Your task to perform on an android device: turn on translation in the chrome app Image 0: 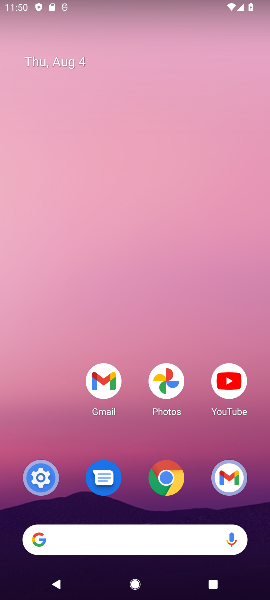
Step 0: drag from (125, 489) to (184, 103)
Your task to perform on an android device: turn on translation in the chrome app Image 1: 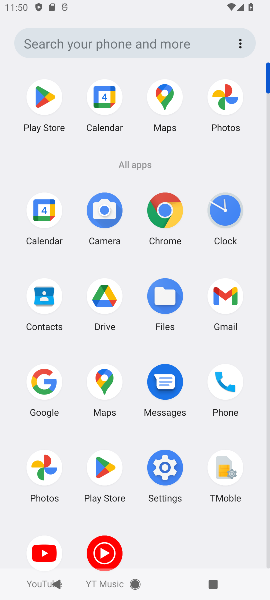
Step 1: click (153, 205)
Your task to perform on an android device: turn on translation in the chrome app Image 2: 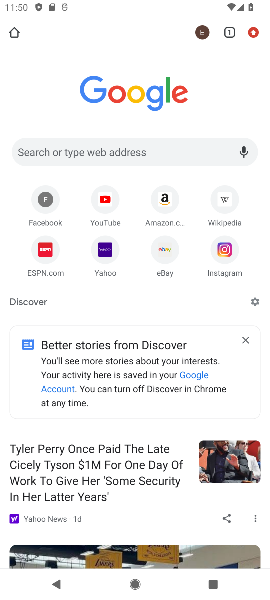
Step 2: drag from (257, 23) to (175, 312)
Your task to perform on an android device: turn on translation in the chrome app Image 3: 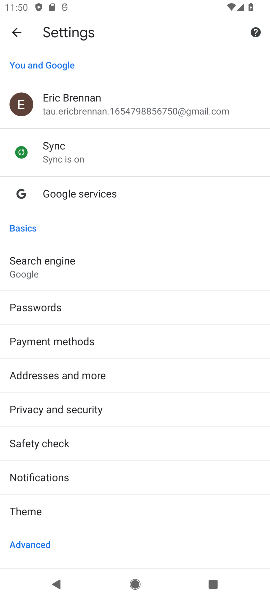
Step 3: drag from (89, 483) to (169, 193)
Your task to perform on an android device: turn on translation in the chrome app Image 4: 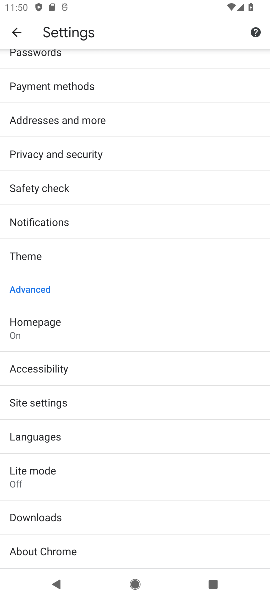
Step 4: click (41, 436)
Your task to perform on an android device: turn on translation in the chrome app Image 5: 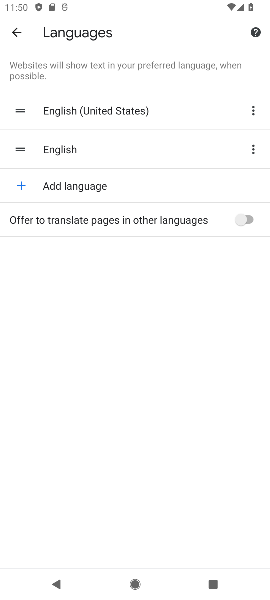
Step 5: click (139, 213)
Your task to perform on an android device: turn on translation in the chrome app Image 6: 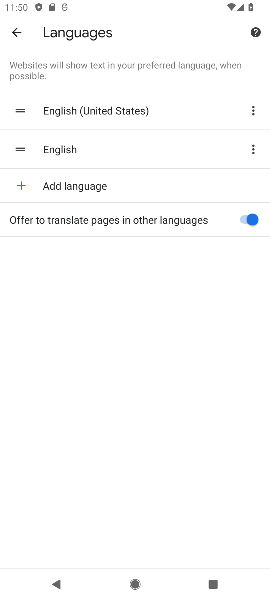
Step 6: task complete